Your task to perform on an android device: Set the phone to "Do not disturb". Image 0: 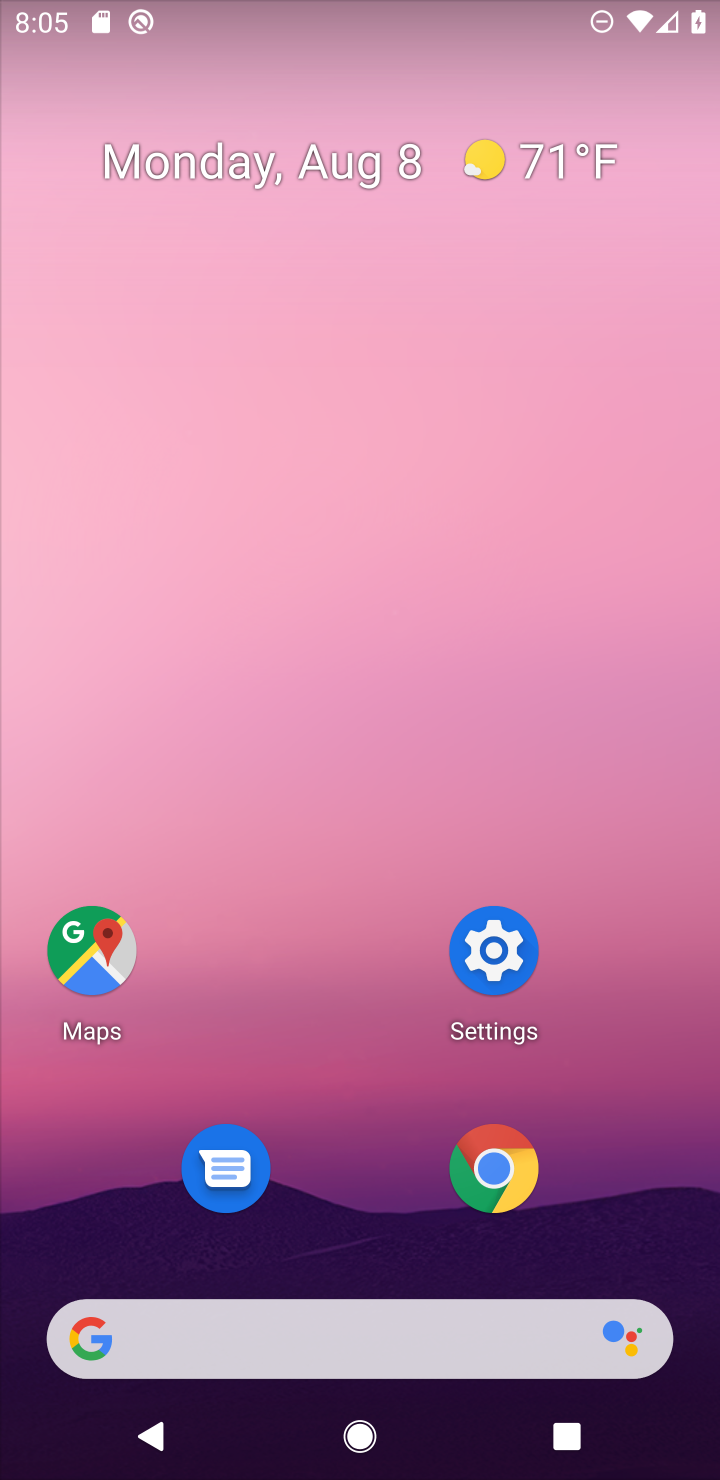
Step 0: click (493, 959)
Your task to perform on an android device: Set the phone to "Do not disturb". Image 1: 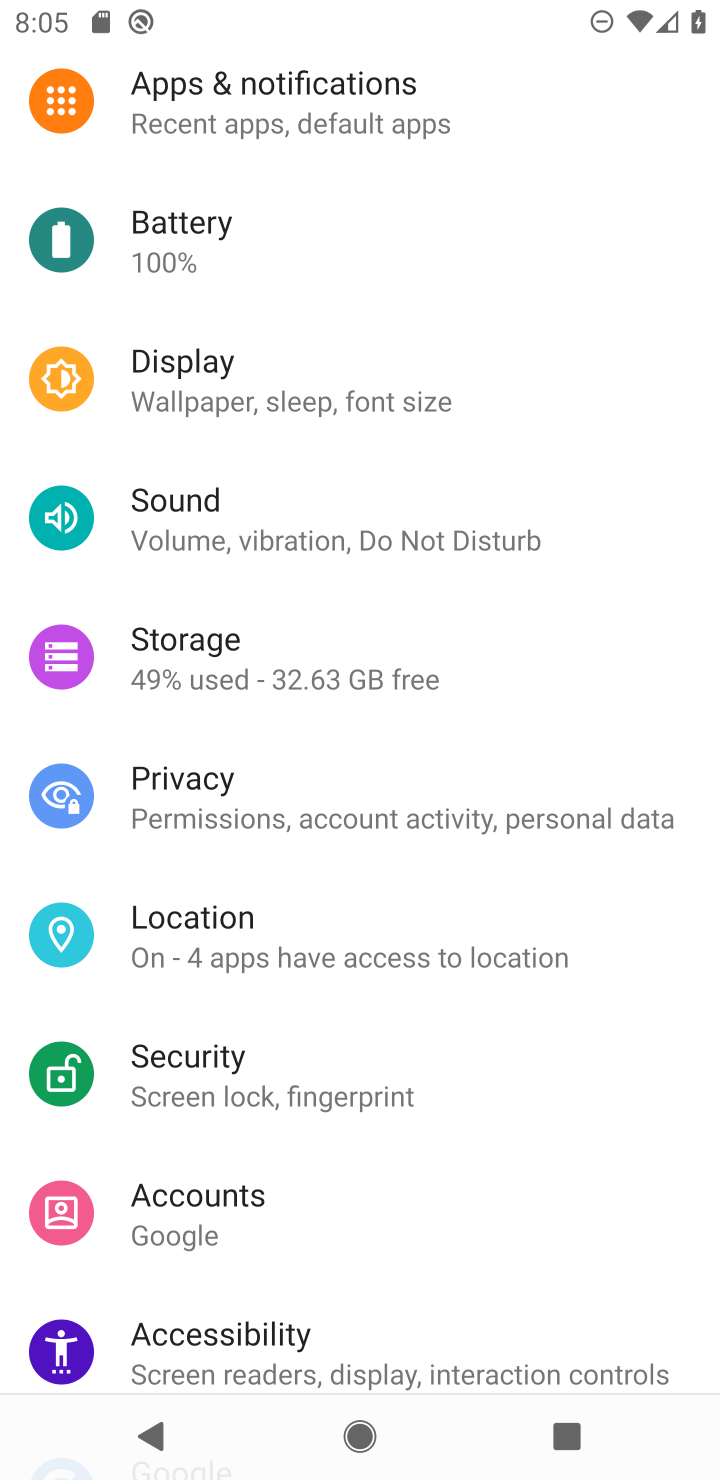
Step 1: click (223, 515)
Your task to perform on an android device: Set the phone to "Do not disturb". Image 2: 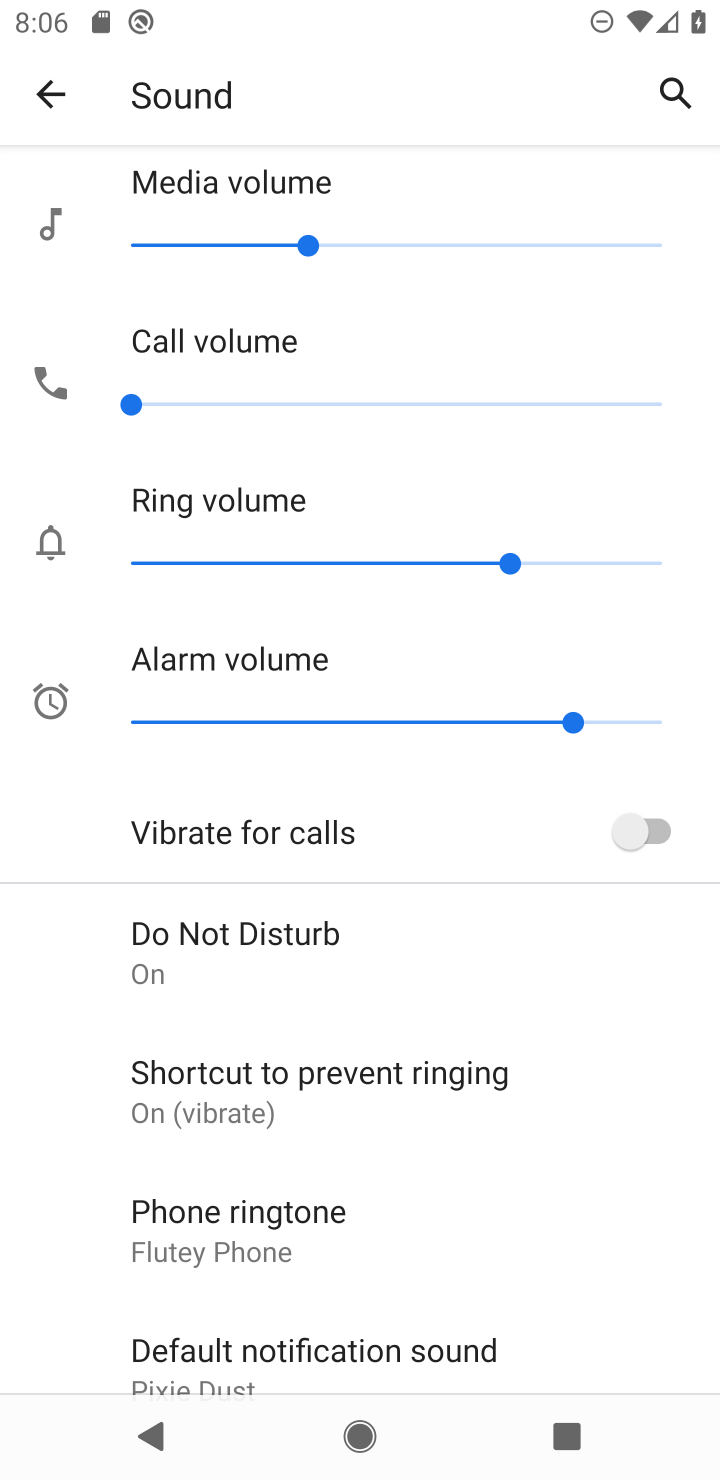
Step 2: click (273, 910)
Your task to perform on an android device: Set the phone to "Do not disturb". Image 3: 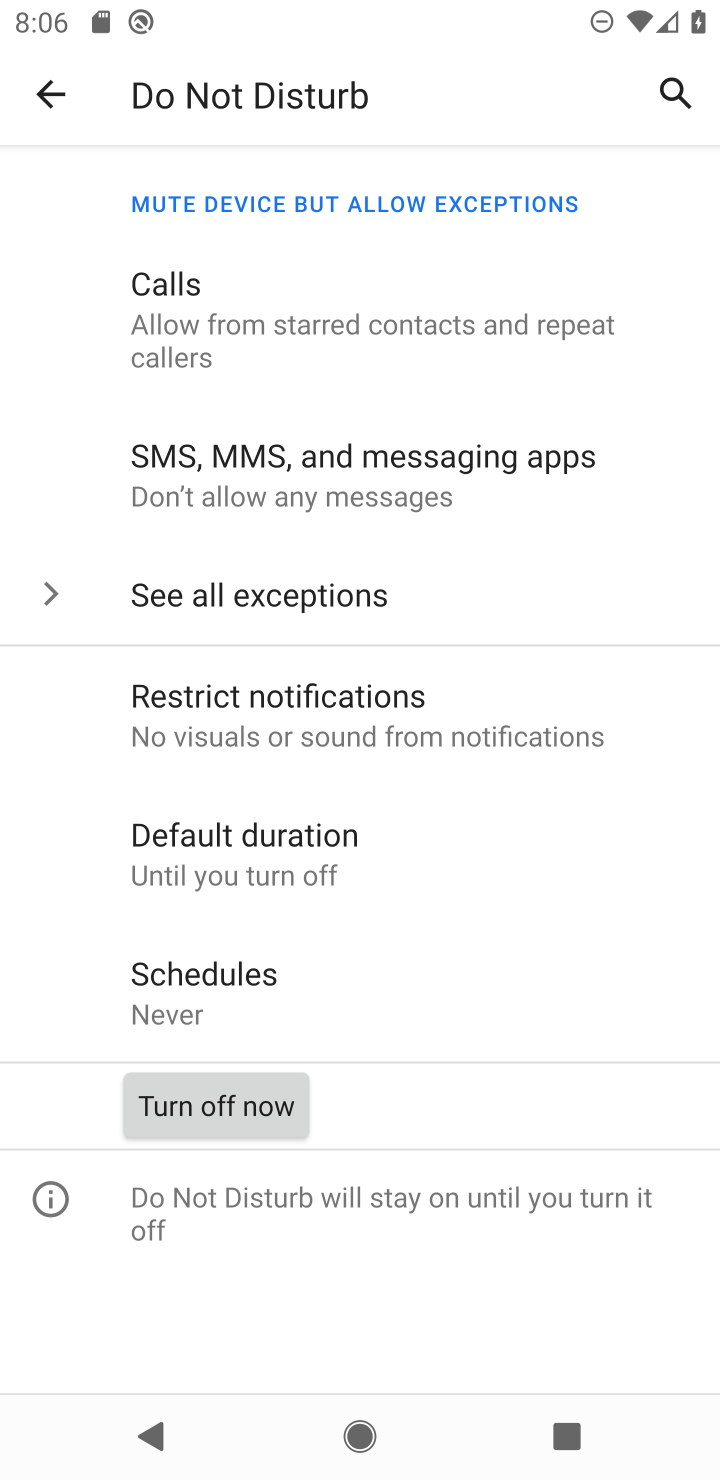
Step 3: task complete